Your task to perform on an android device: check android version Image 0: 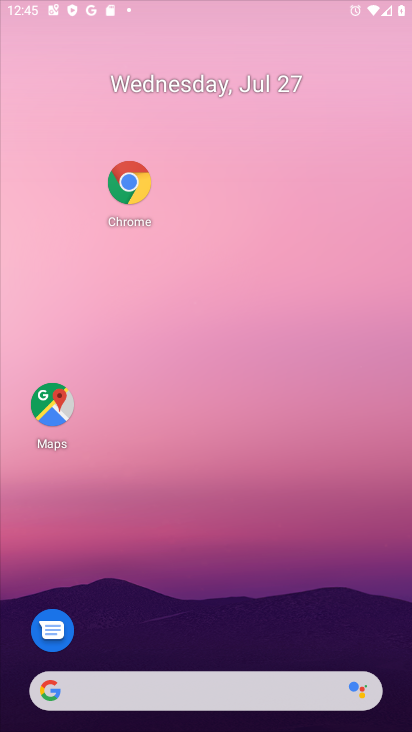
Step 0: click (126, 692)
Your task to perform on an android device: check android version Image 1: 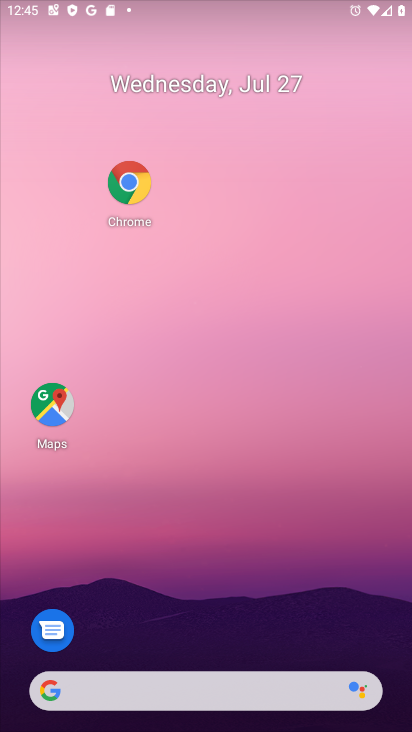
Step 1: click (125, 705)
Your task to perform on an android device: check android version Image 2: 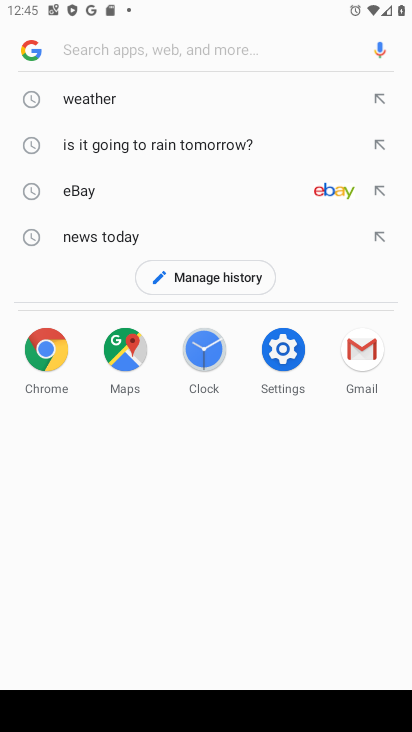
Step 2: press home button
Your task to perform on an android device: check android version Image 3: 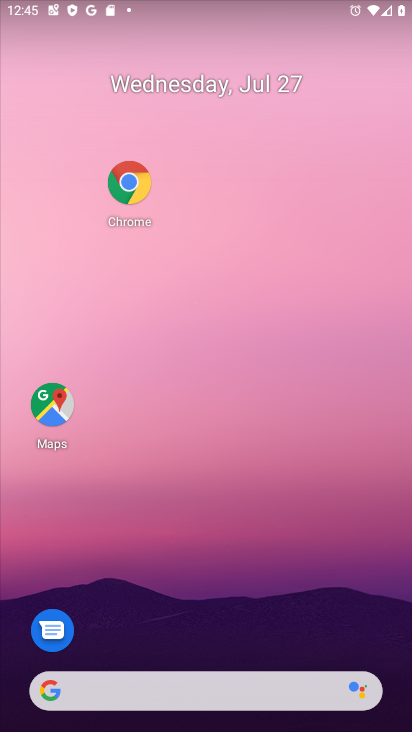
Step 3: drag from (255, 724) to (318, 143)
Your task to perform on an android device: check android version Image 4: 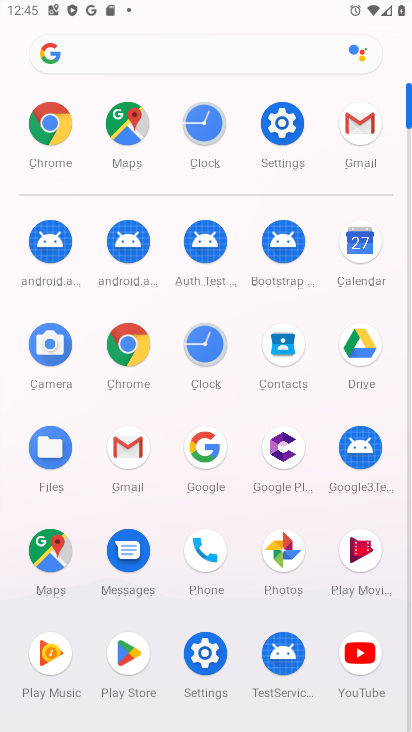
Step 4: click (290, 137)
Your task to perform on an android device: check android version Image 5: 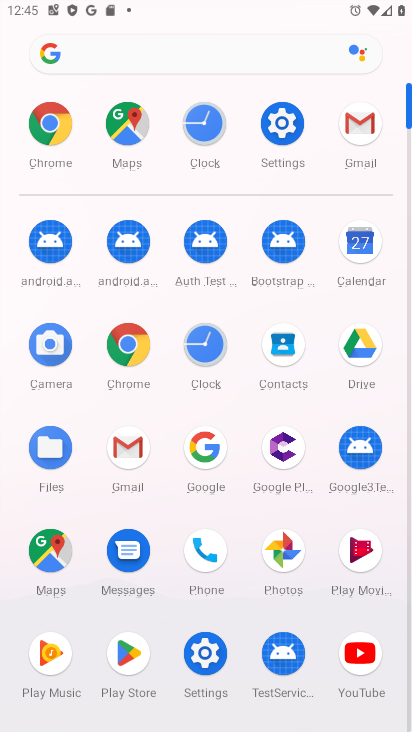
Step 5: click (290, 137)
Your task to perform on an android device: check android version Image 6: 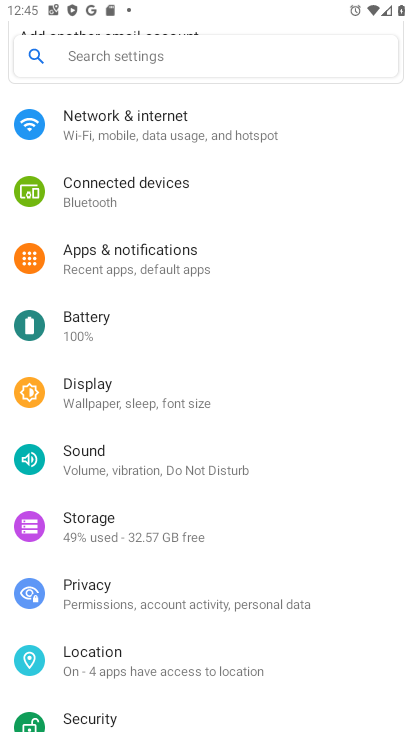
Step 6: drag from (278, 692) to (278, 54)
Your task to perform on an android device: check android version Image 7: 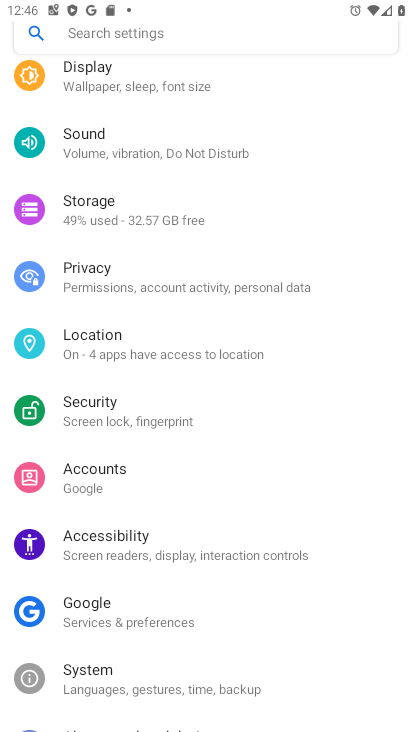
Step 7: drag from (293, 659) to (374, 7)
Your task to perform on an android device: check android version Image 8: 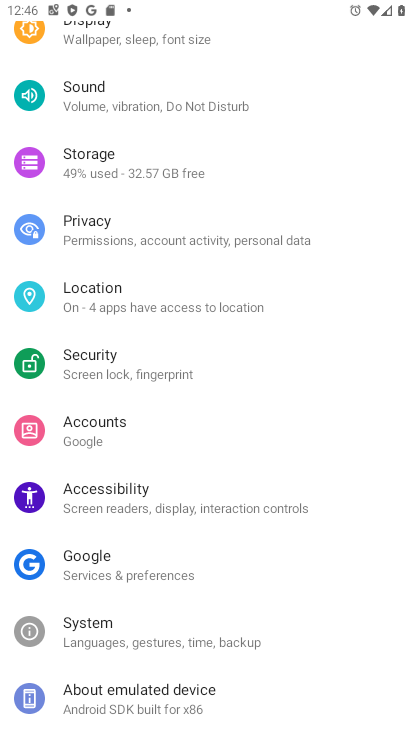
Step 8: click (145, 706)
Your task to perform on an android device: check android version Image 9: 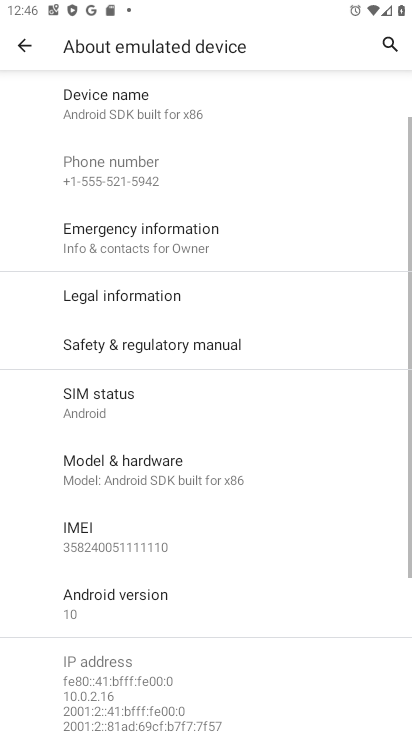
Step 9: task complete